Your task to perform on an android device: Open Yahoo.com Image 0: 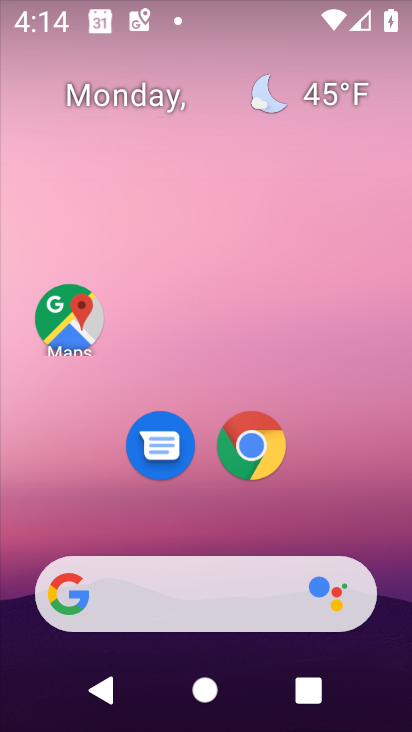
Step 0: click (250, 457)
Your task to perform on an android device: Open Yahoo.com Image 1: 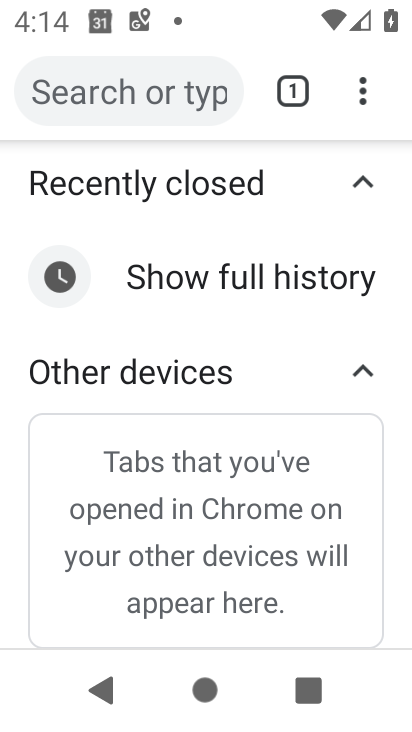
Step 1: click (131, 100)
Your task to perform on an android device: Open Yahoo.com Image 2: 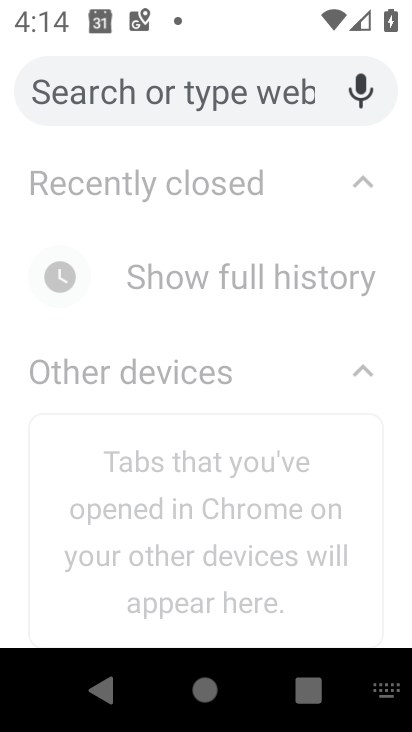
Step 2: type "yahoo.com"
Your task to perform on an android device: Open Yahoo.com Image 3: 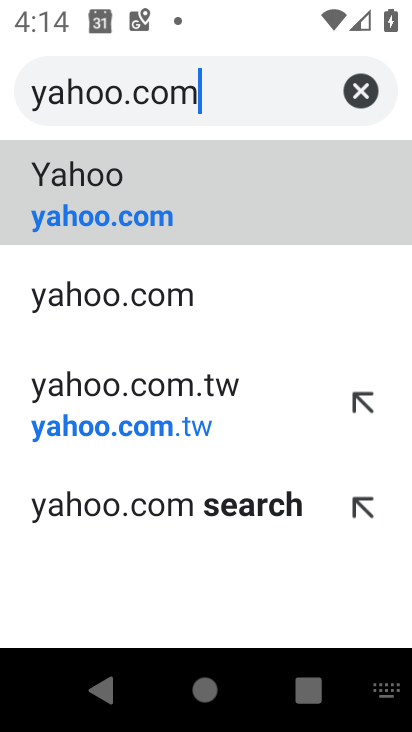
Step 3: click (165, 224)
Your task to perform on an android device: Open Yahoo.com Image 4: 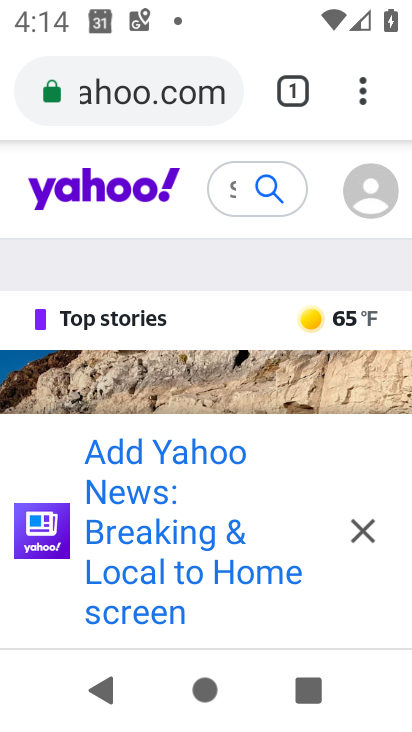
Step 4: task complete